Your task to perform on an android device: Open Android settings Image 0: 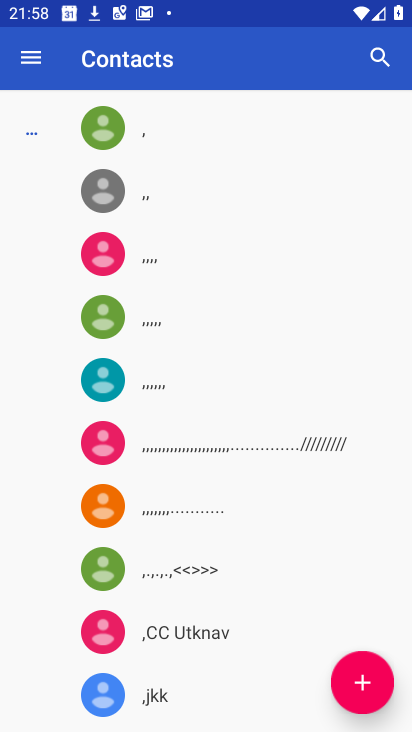
Step 0: press home button
Your task to perform on an android device: Open Android settings Image 1: 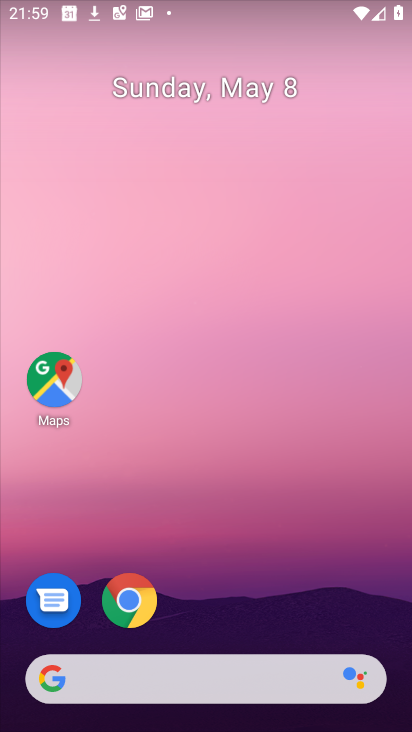
Step 1: drag from (254, 716) to (150, 293)
Your task to perform on an android device: Open Android settings Image 2: 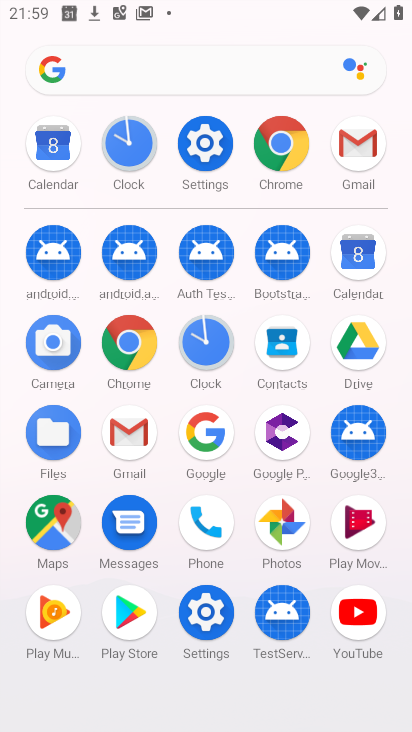
Step 2: click (184, 150)
Your task to perform on an android device: Open Android settings Image 3: 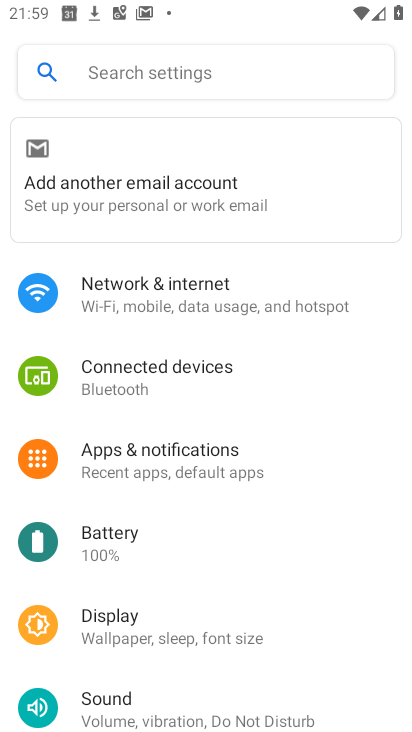
Step 3: click (170, 82)
Your task to perform on an android device: Open Android settings Image 4: 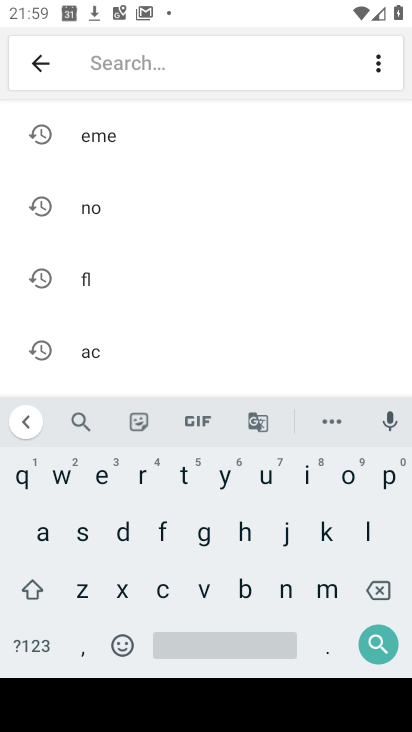
Step 4: click (40, 527)
Your task to perform on an android device: Open Android settings Image 5: 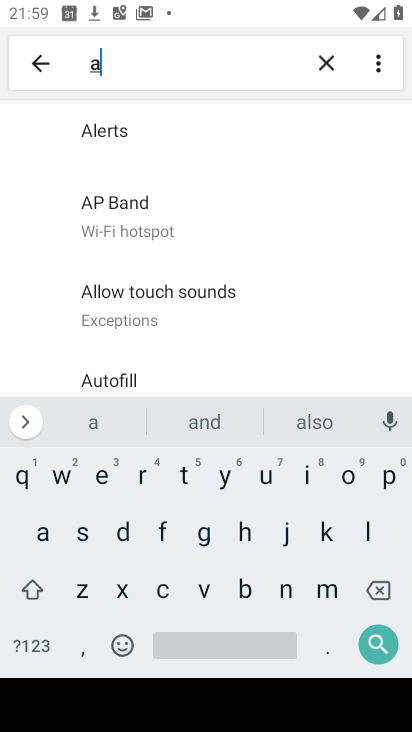
Step 5: click (280, 593)
Your task to perform on an android device: Open Android settings Image 6: 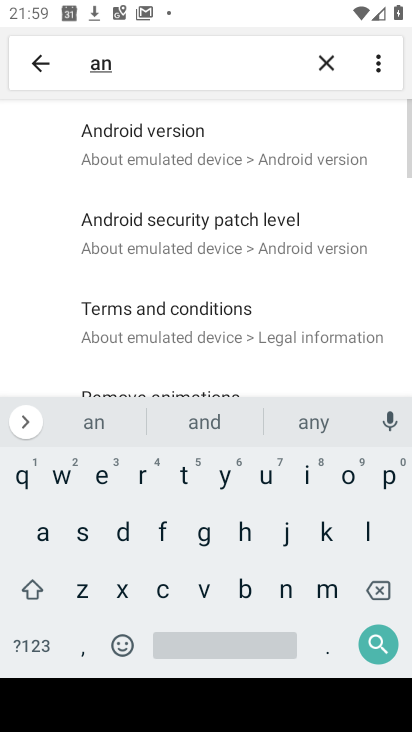
Step 6: click (117, 536)
Your task to perform on an android device: Open Android settings Image 7: 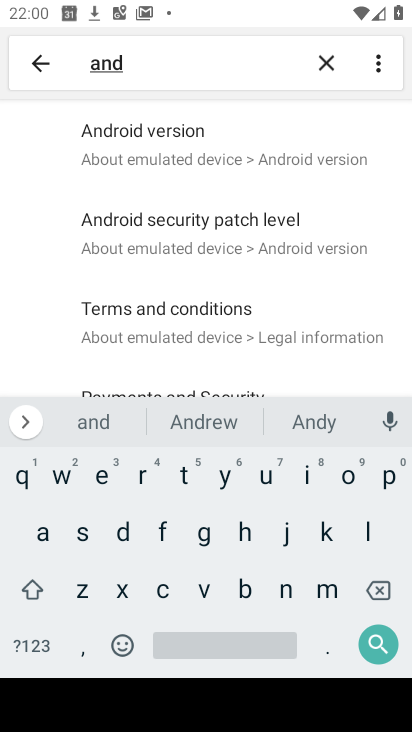
Step 7: click (188, 171)
Your task to perform on an android device: Open Android settings Image 8: 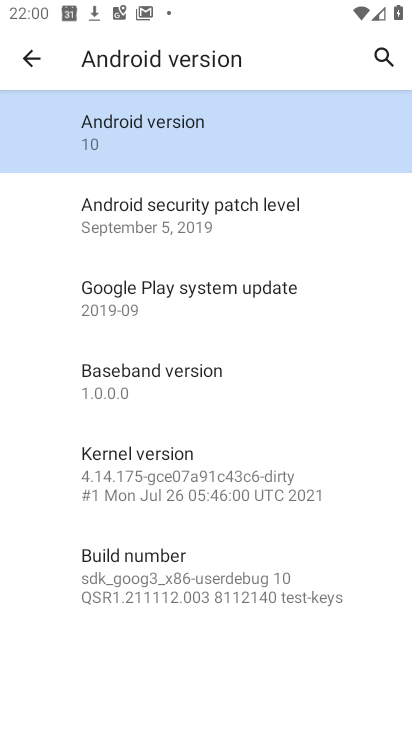
Step 8: click (156, 147)
Your task to perform on an android device: Open Android settings Image 9: 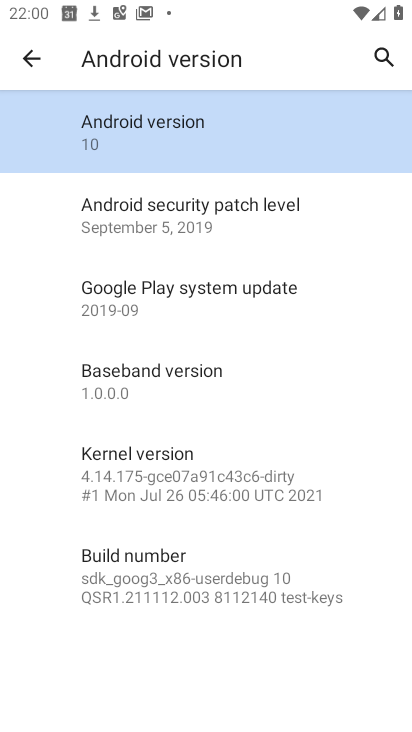
Step 9: task complete